Your task to perform on an android device: Open Google Chrome and open the bookmarks view Image 0: 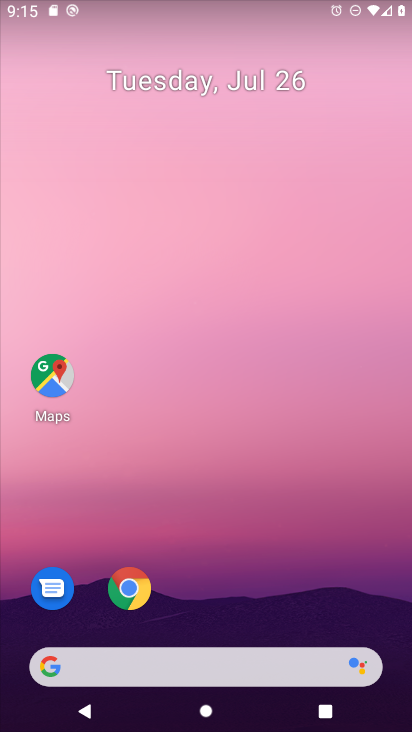
Step 0: drag from (257, 635) to (252, 40)
Your task to perform on an android device: Open Google Chrome and open the bookmarks view Image 1: 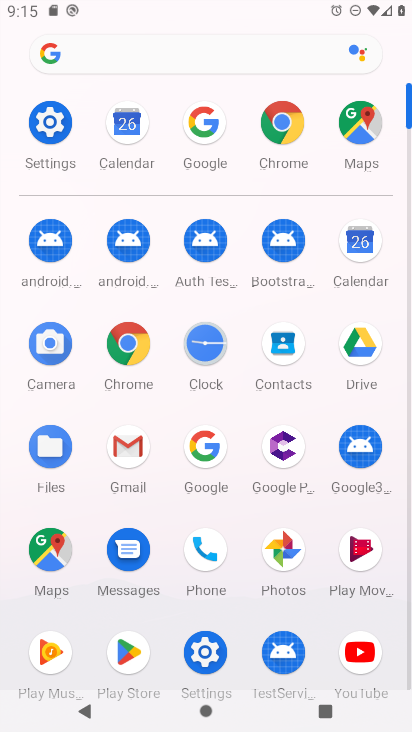
Step 1: click (129, 353)
Your task to perform on an android device: Open Google Chrome and open the bookmarks view Image 2: 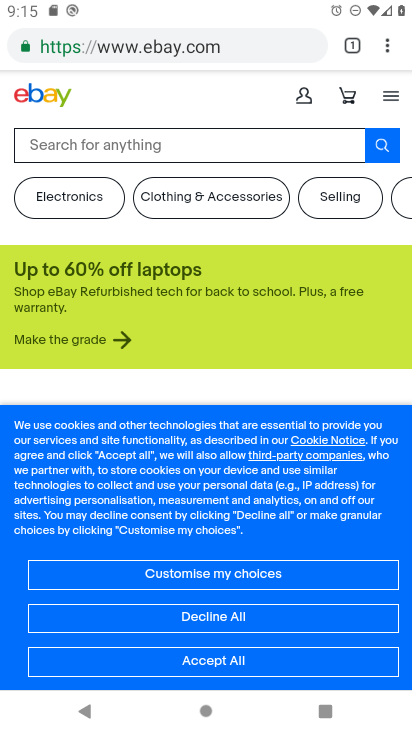
Step 2: click (390, 51)
Your task to perform on an android device: Open Google Chrome and open the bookmarks view Image 3: 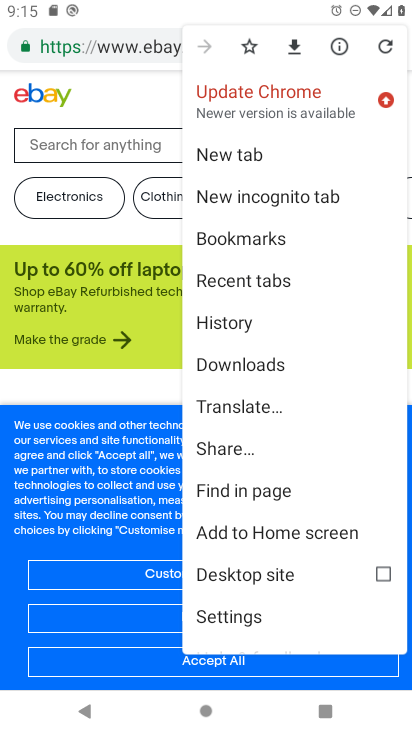
Step 3: click (243, 243)
Your task to perform on an android device: Open Google Chrome and open the bookmarks view Image 4: 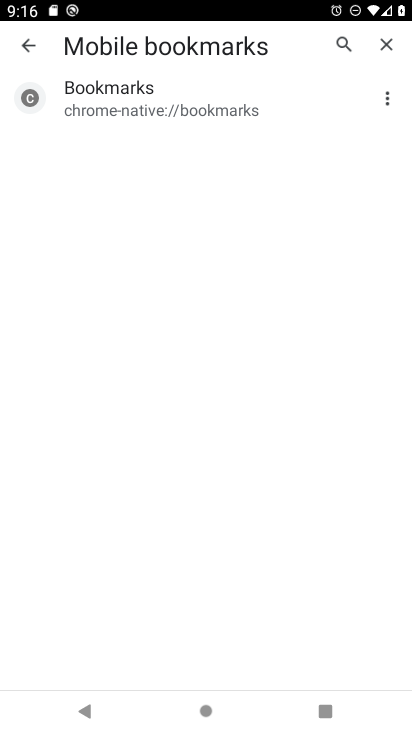
Step 4: click (235, 103)
Your task to perform on an android device: Open Google Chrome and open the bookmarks view Image 5: 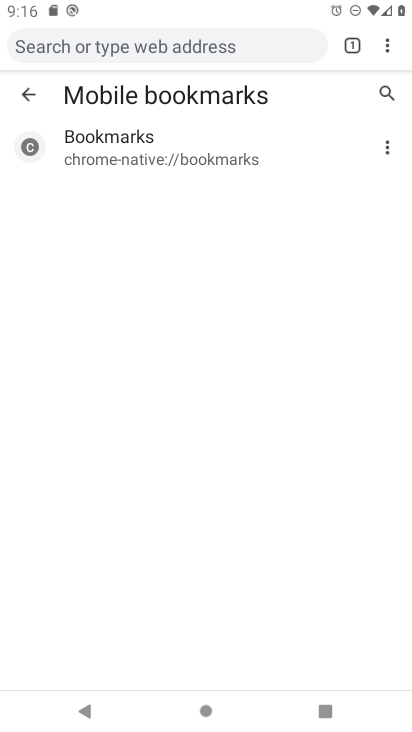
Step 5: click (230, 148)
Your task to perform on an android device: Open Google Chrome and open the bookmarks view Image 6: 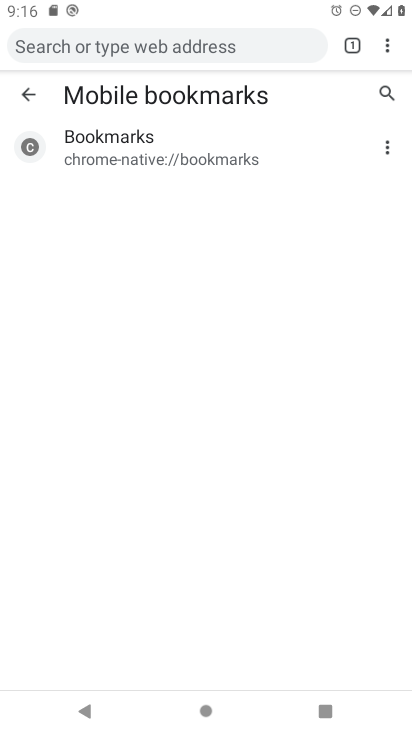
Step 6: task complete